Your task to perform on an android device: toggle pop-ups in chrome Image 0: 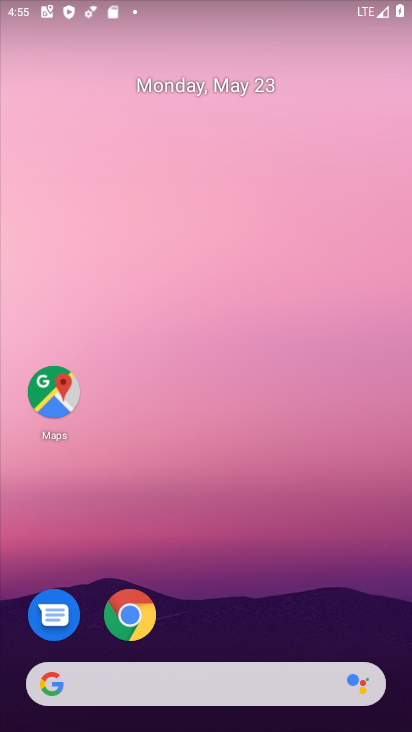
Step 0: click (123, 621)
Your task to perform on an android device: toggle pop-ups in chrome Image 1: 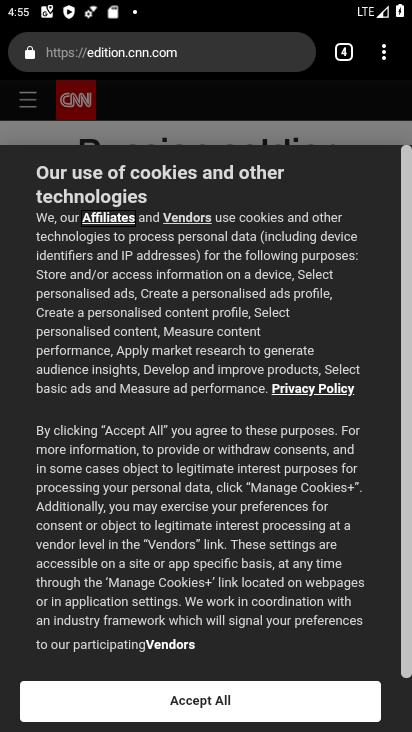
Step 1: drag from (382, 46) to (189, 576)
Your task to perform on an android device: toggle pop-ups in chrome Image 2: 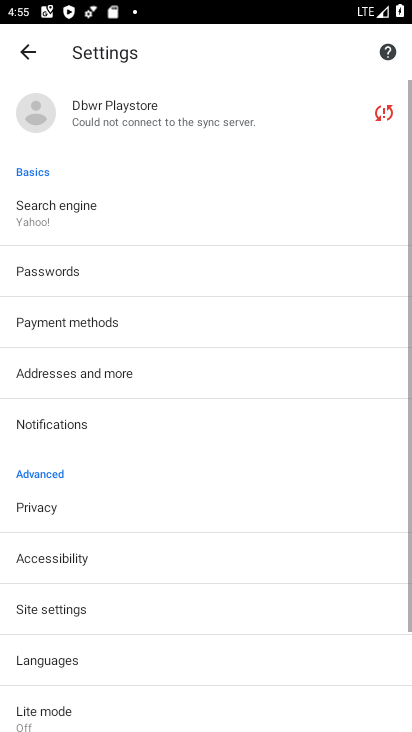
Step 2: drag from (183, 655) to (222, 339)
Your task to perform on an android device: toggle pop-ups in chrome Image 3: 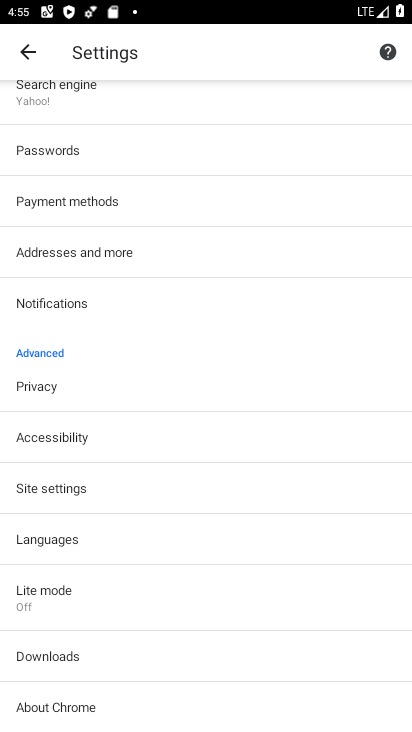
Step 3: click (37, 487)
Your task to perform on an android device: toggle pop-ups in chrome Image 4: 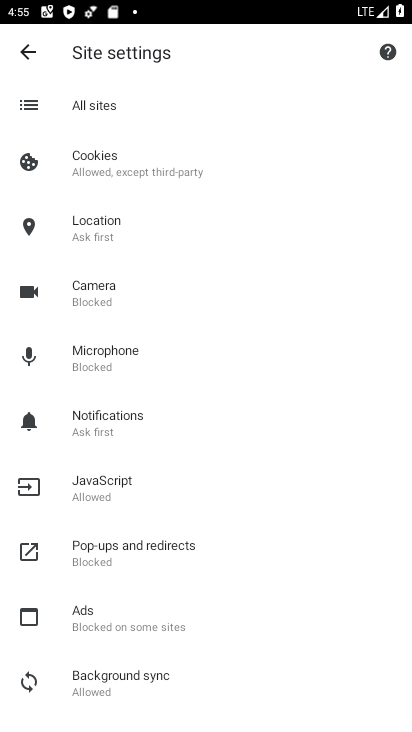
Step 4: click (104, 551)
Your task to perform on an android device: toggle pop-ups in chrome Image 5: 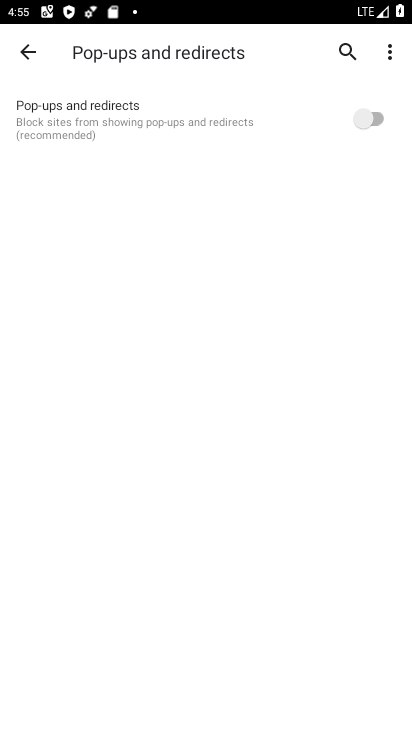
Step 5: click (359, 113)
Your task to perform on an android device: toggle pop-ups in chrome Image 6: 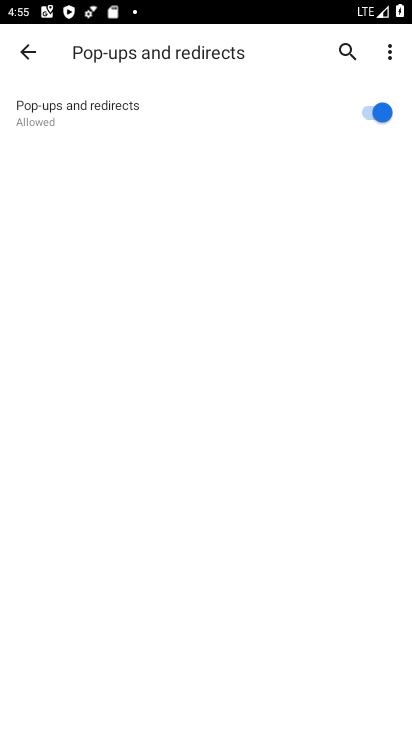
Step 6: task complete